Your task to perform on an android device: Show me recent news Image 0: 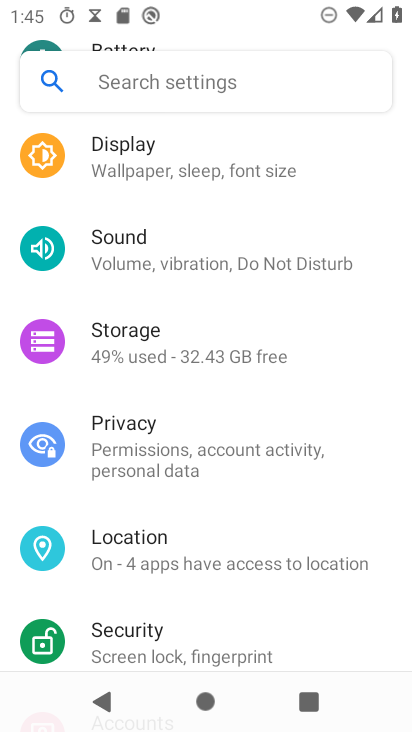
Step 0: press home button
Your task to perform on an android device: Show me recent news Image 1: 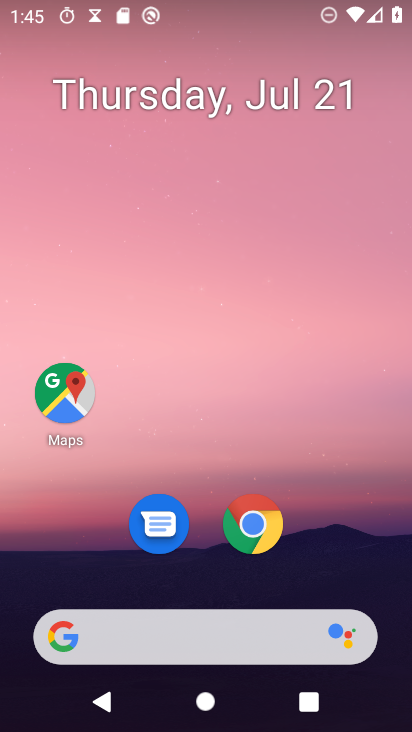
Step 1: click (182, 625)
Your task to perform on an android device: Show me recent news Image 2: 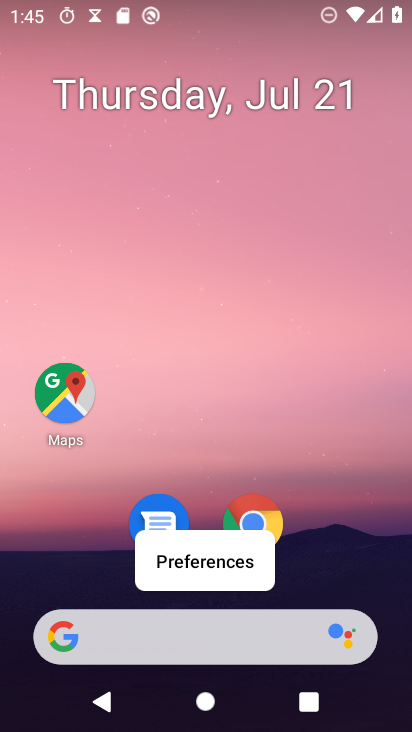
Step 2: click (169, 636)
Your task to perform on an android device: Show me recent news Image 3: 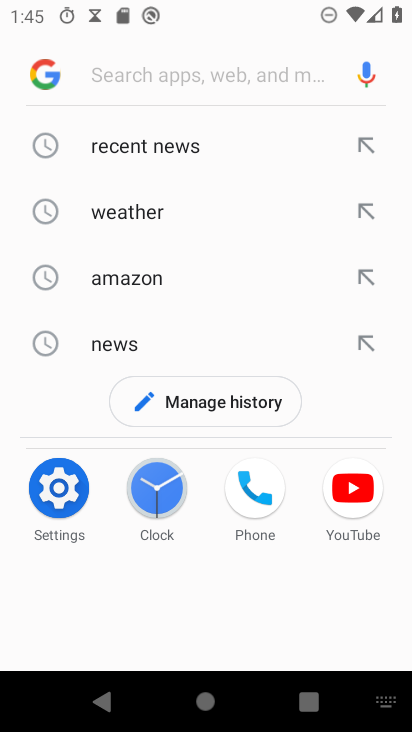
Step 3: click (161, 131)
Your task to perform on an android device: Show me recent news Image 4: 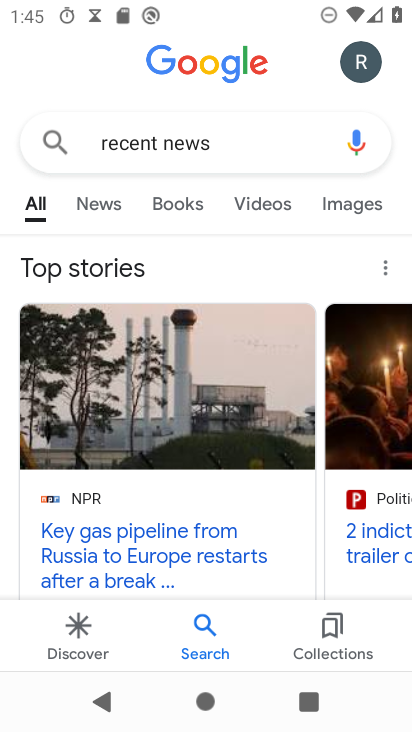
Step 4: click (86, 211)
Your task to perform on an android device: Show me recent news Image 5: 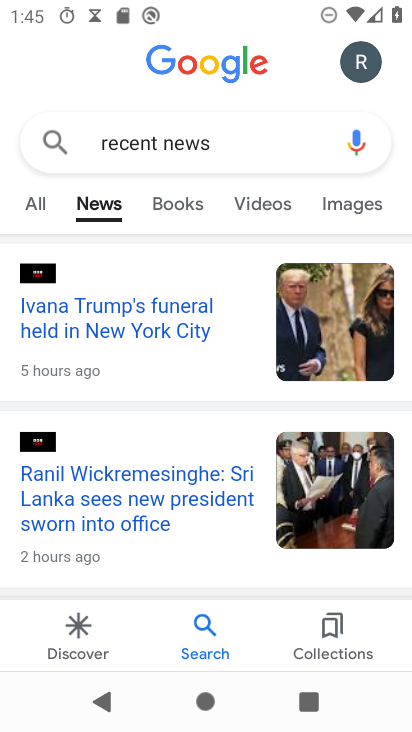
Step 5: task complete